Your task to perform on an android device: Search for sushi restaurants on Maps Image 0: 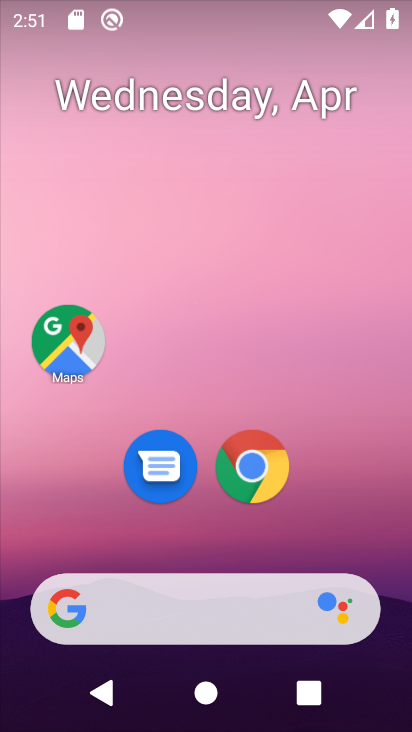
Step 0: click (66, 345)
Your task to perform on an android device: Search for sushi restaurants on Maps Image 1: 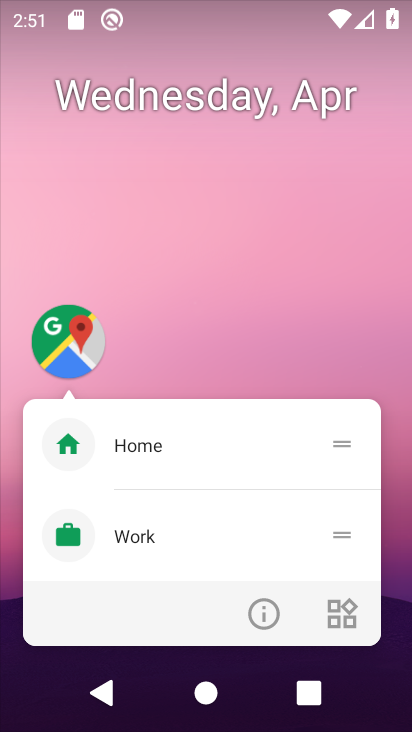
Step 1: click (72, 349)
Your task to perform on an android device: Search for sushi restaurants on Maps Image 2: 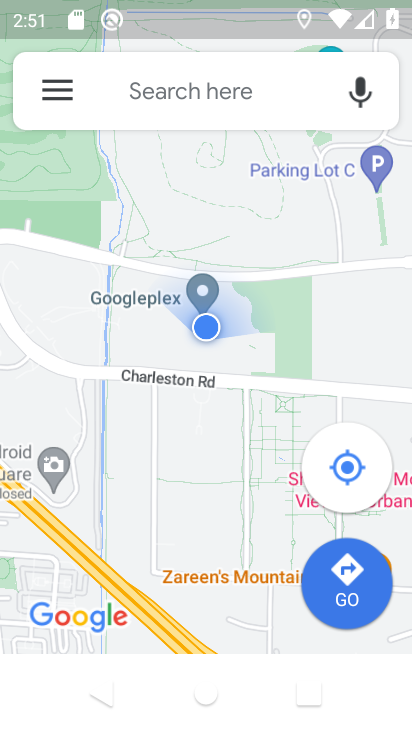
Step 2: click (148, 93)
Your task to perform on an android device: Search for sushi restaurants on Maps Image 3: 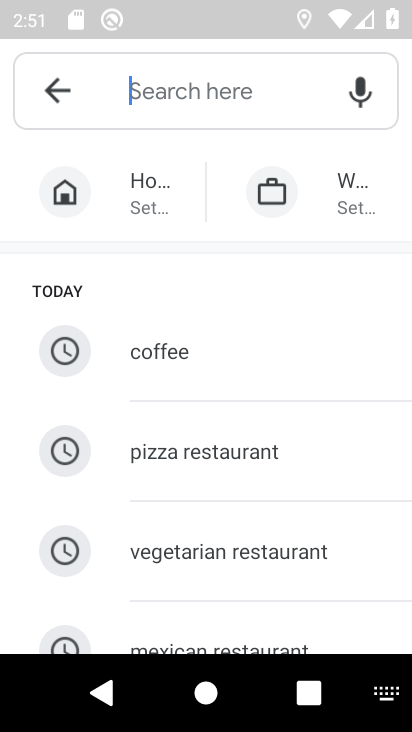
Step 3: click (187, 90)
Your task to perform on an android device: Search for sushi restaurants on Maps Image 4: 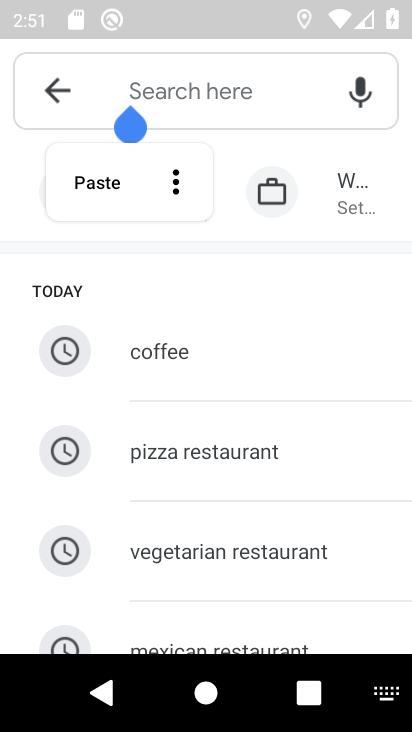
Step 4: click (168, 90)
Your task to perform on an android device: Search for sushi restaurants on Maps Image 5: 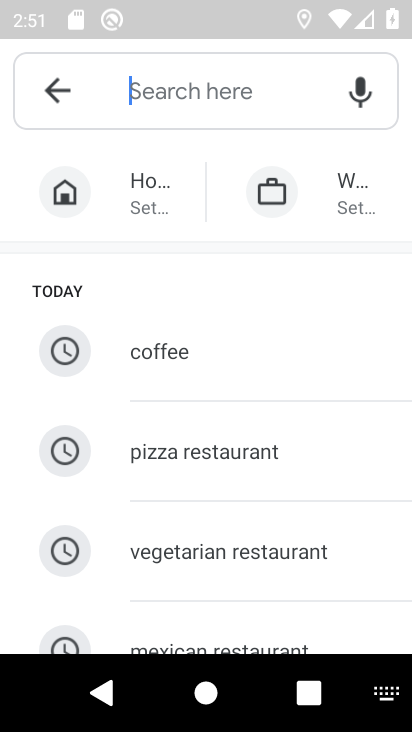
Step 5: type "sushi restaurants"
Your task to perform on an android device: Search for sushi restaurants on Maps Image 6: 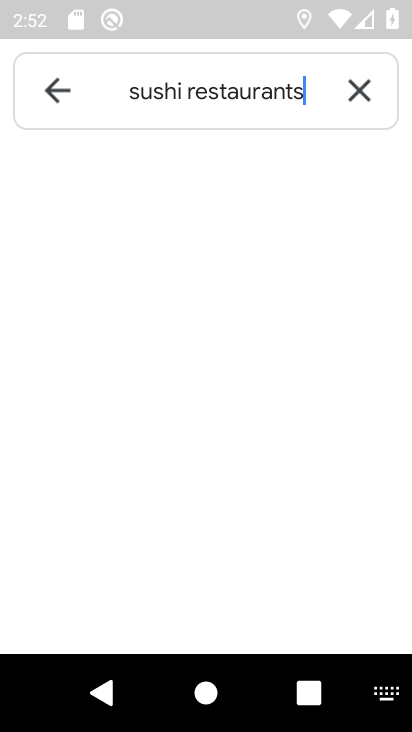
Step 6: type ""
Your task to perform on an android device: Search for sushi restaurants on Maps Image 7: 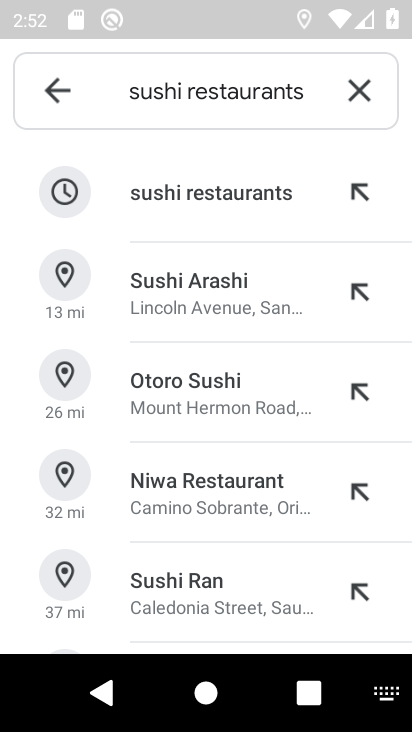
Step 7: click (234, 190)
Your task to perform on an android device: Search for sushi restaurants on Maps Image 8: 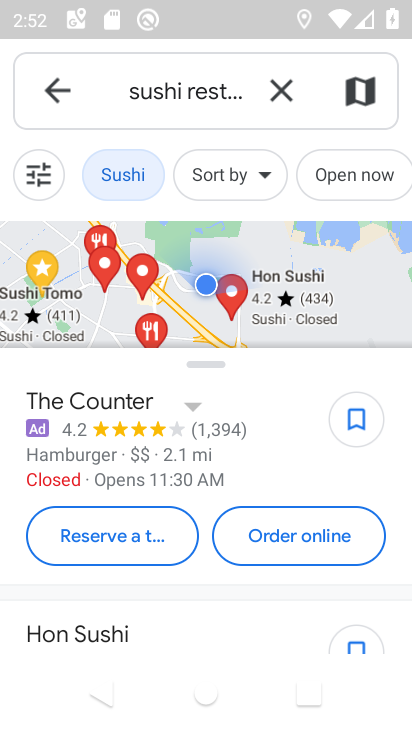
Step 8: task complete